Your task to perform on an android device: open app "McDonald's" (install if not already installed) and go to login screen Image 0: 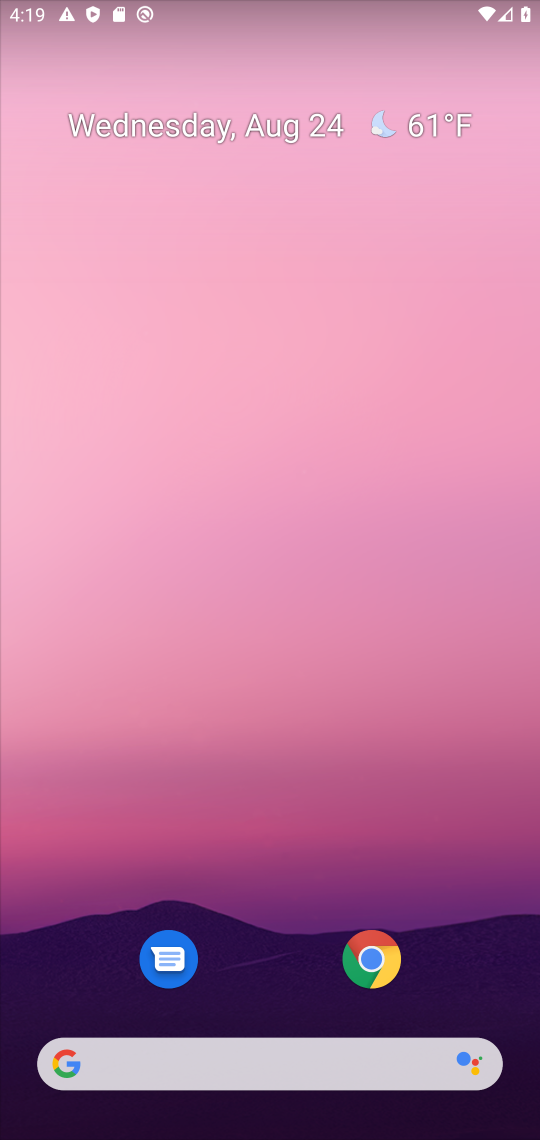
Step 0: drag from (287, 978) to (299, 136)
Your task to perform on an android device: open app "McDonald's" (install if not already installed) and go to login screen Image 1: 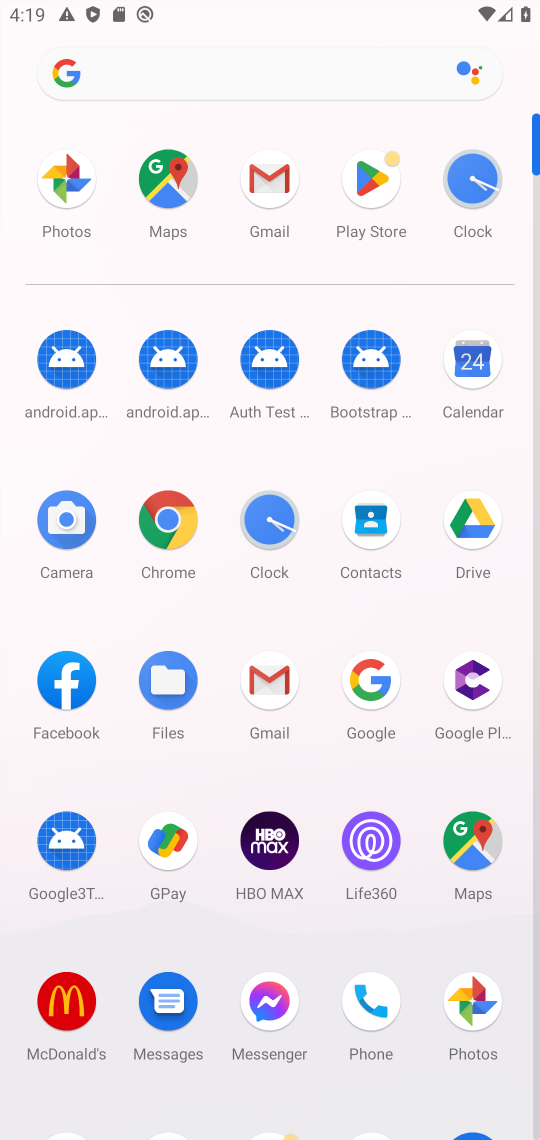
Step 1: click (88, 1013)
Your task to perform on an android device: open app "McDonald's" (install if not already installed) and go to login screen Image 2: 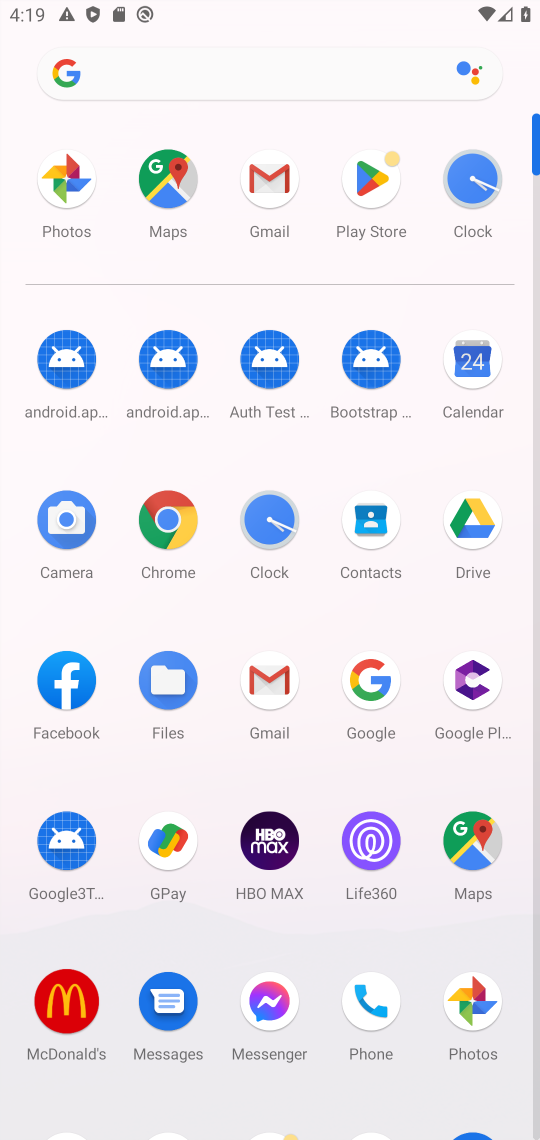
Step 2: task complete